Your task to perform on an android device: Open network settings Image 0: 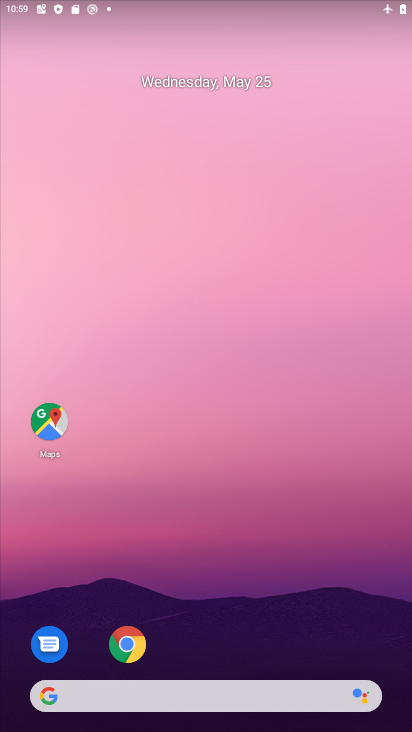
Step 0: drag from (221, 610) to (198, 88)
Your task to perform on an android device: Open network settings Image 1: 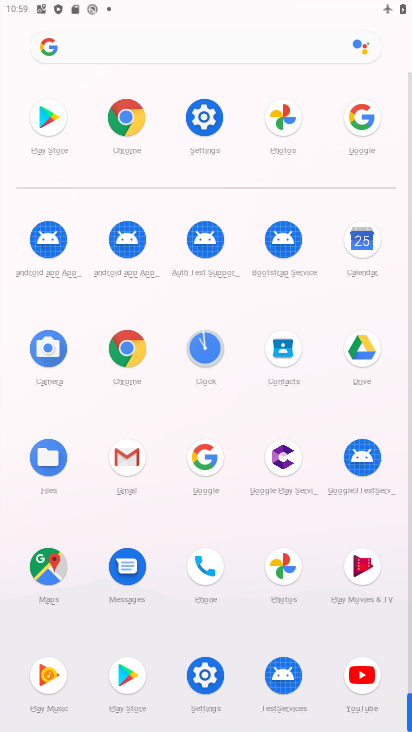
Step 1: click (206, 112)
Your task to perform on an android device: Open network settings Image 2: 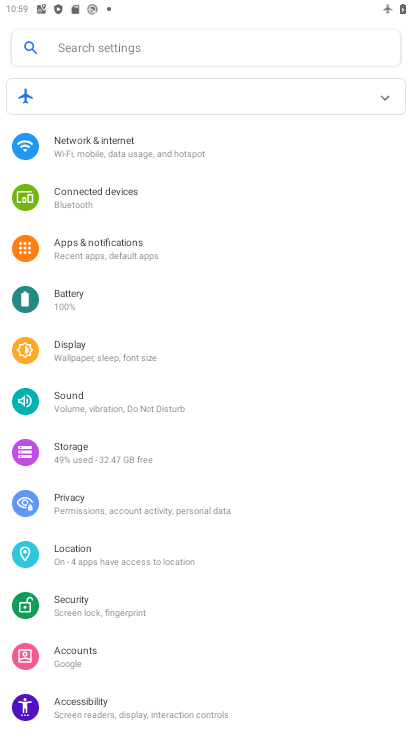
Step 2: click (122, 137)
Your task to perform on an android device: Open network settings Image 3: 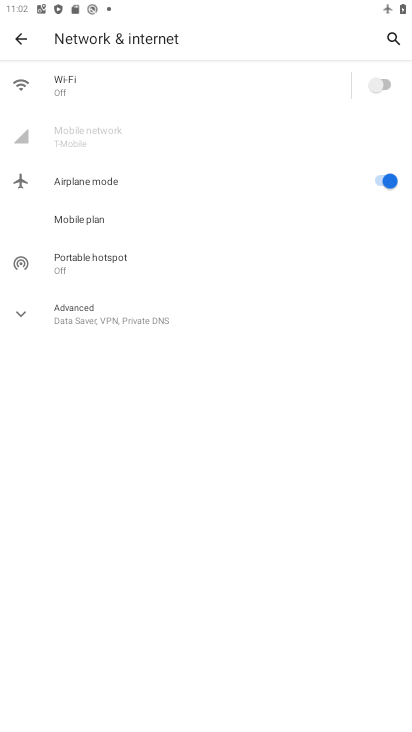
Step 3: task complete